Your task to perform on an android device: install app "HBO Max: Stream TV & Movies" Image 0: 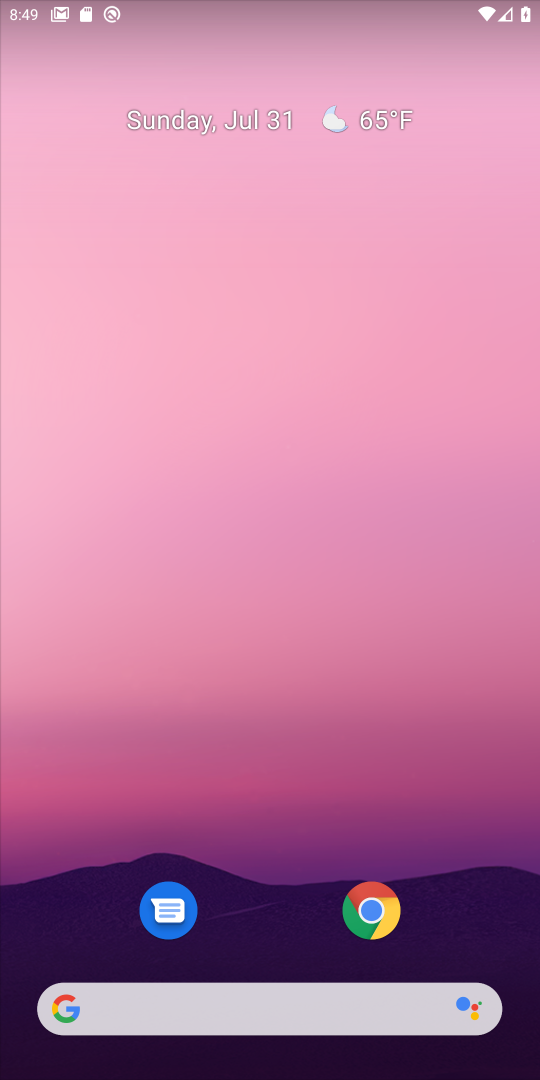
Step 0: drag from (286, 807) to (204, 400)
Your task to perform on an android device: install app "HBO Max: Stream TV & Movies" Image 1: 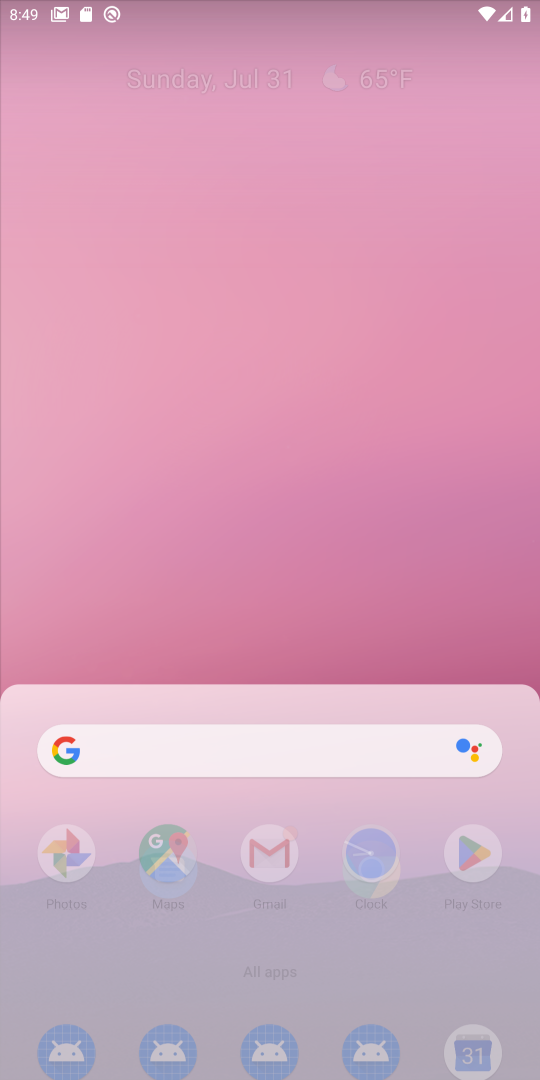
Step 1: drag from (340, 984) to (329, 126)
Your task to perform on an android device: install app "HBO Max: Stream TV & Movies" Image 2: 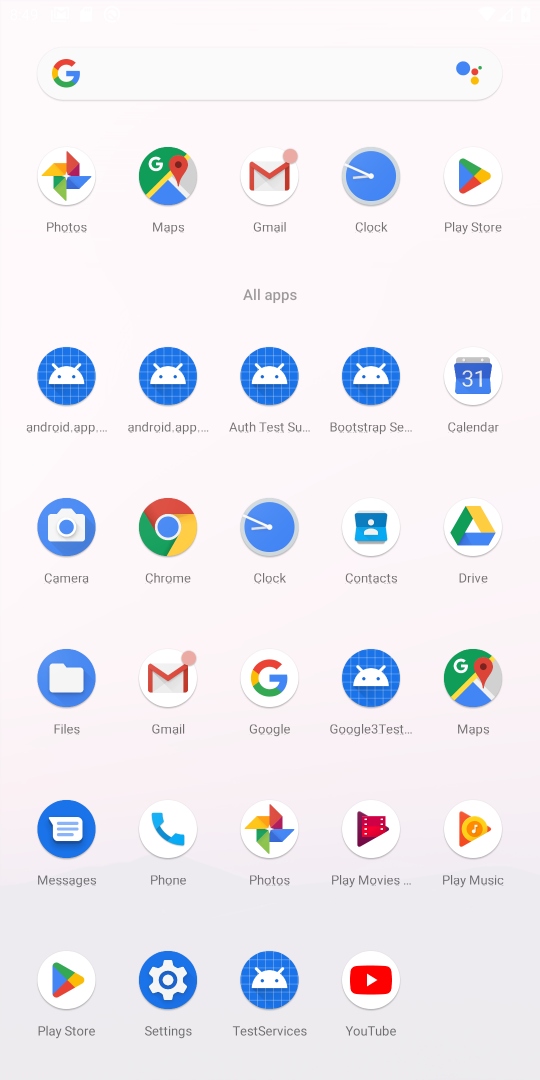
Step 2: drag from (316, 936) to (272, 208)
Your task to perform on an android device: install app "HBO Max: Stream TV & Movies" Image 3: 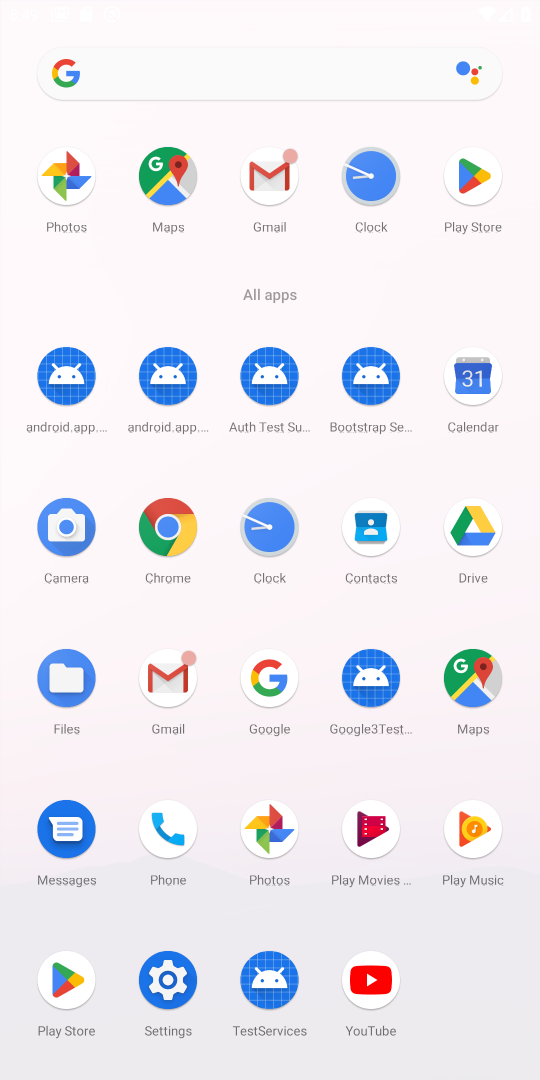
Step 3: drag from (387, 696) to (358, 238)
Your task to perform on an android device: install app "HBO Max: Stream TV & Movies" Image 4: 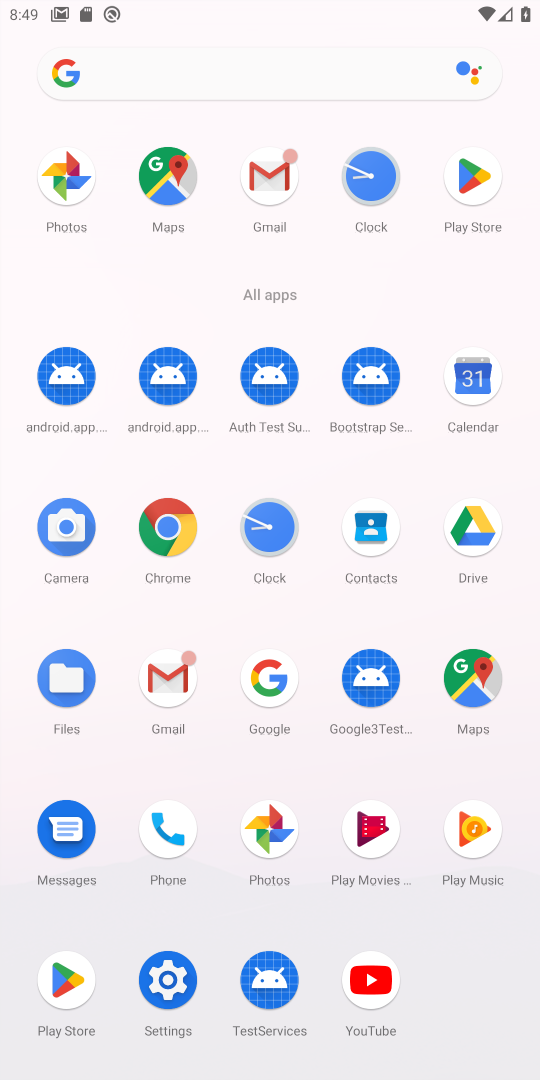
Step 4: click (68, 974)
Your task to perform on an android device: install app "HBO Max: Stream TV & Movies" Image 5: 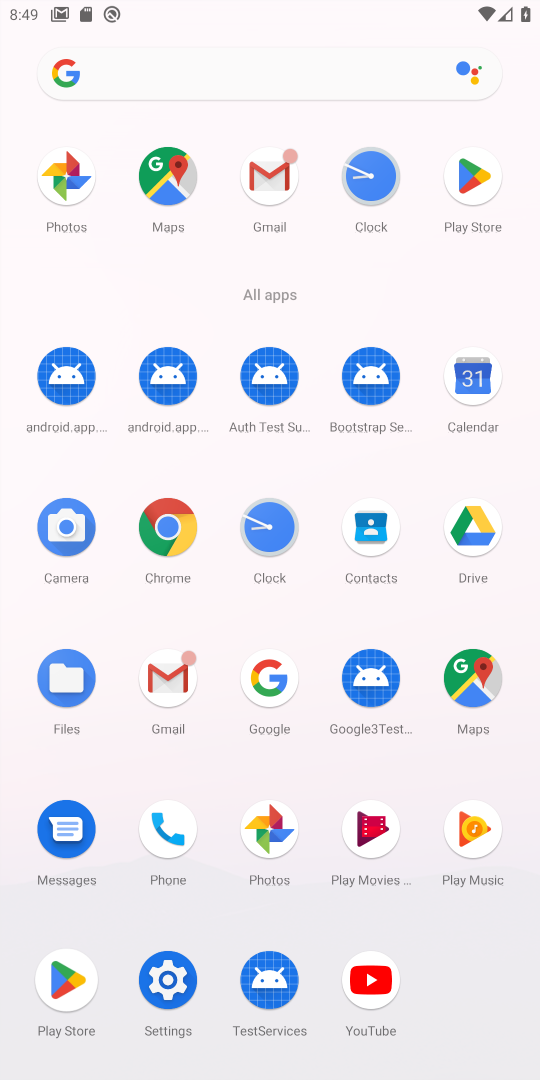
Step 5: click (68, 974)
Your task to perform on an android device: install app "HBO Max: Stream TV & Movies" Image 6: 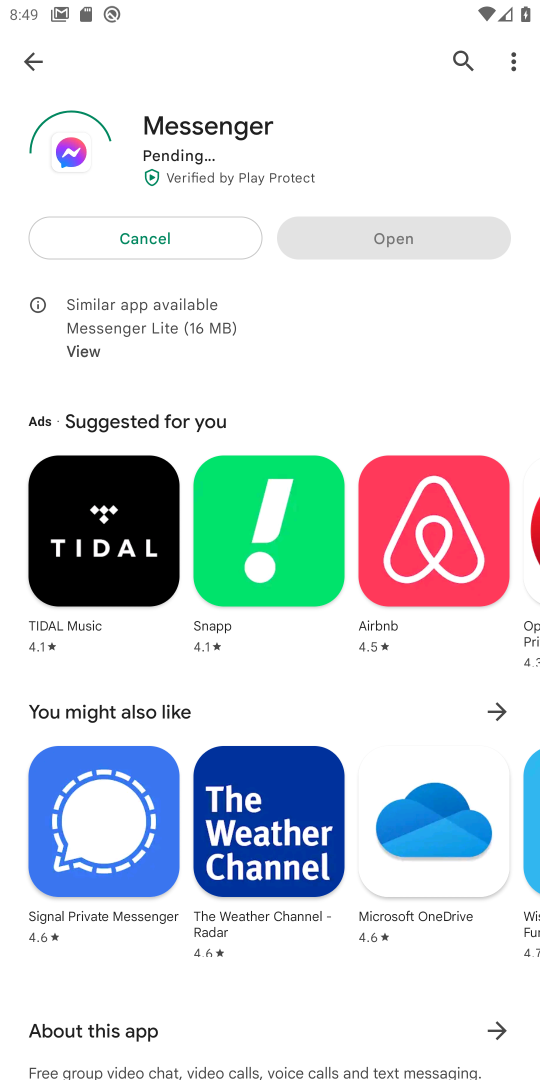
Step 6: click (57, 973)
Your task to perform on an android device: install app "HBO Max: Stream TV & Movies" Image 7: 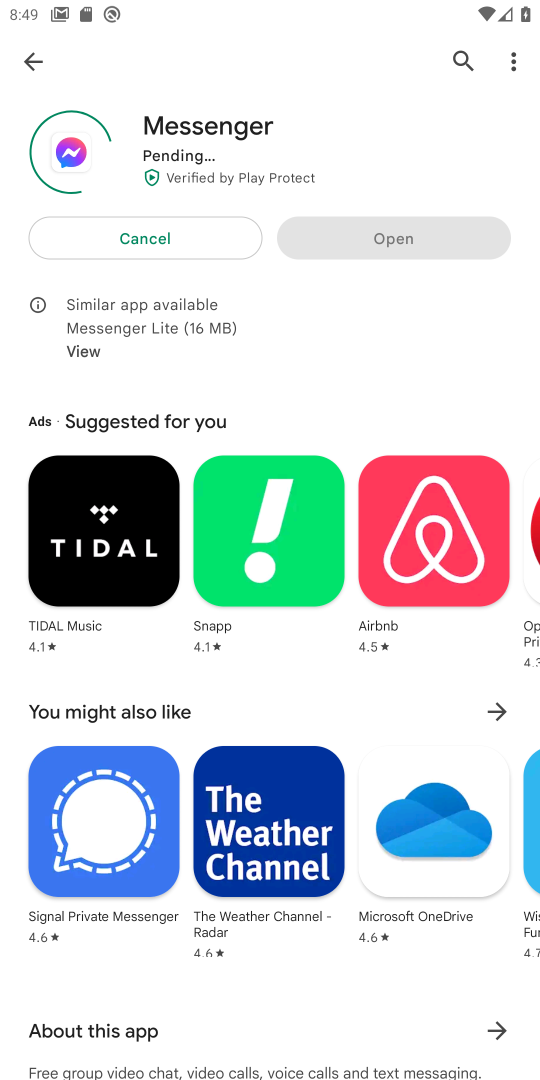
Step 7: click (28, 59)
Your task to perform on an android device: install app "HBO Max: Stream TV & Movies" Image 8: 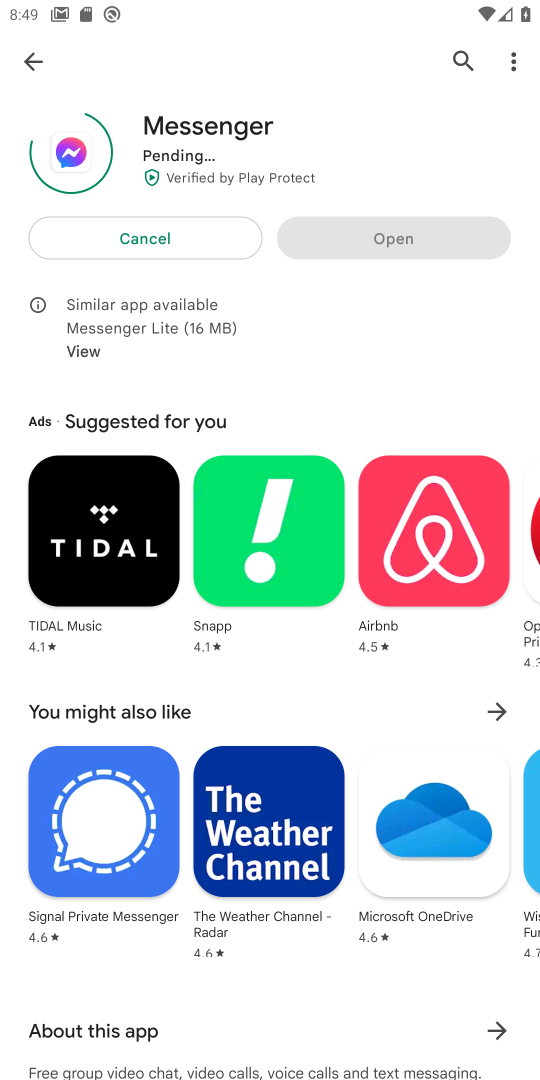
Step 8: click (28, 59)
Your task to perform on an android device: install app "HBO Max: Stream TV & Movies" Image 9: 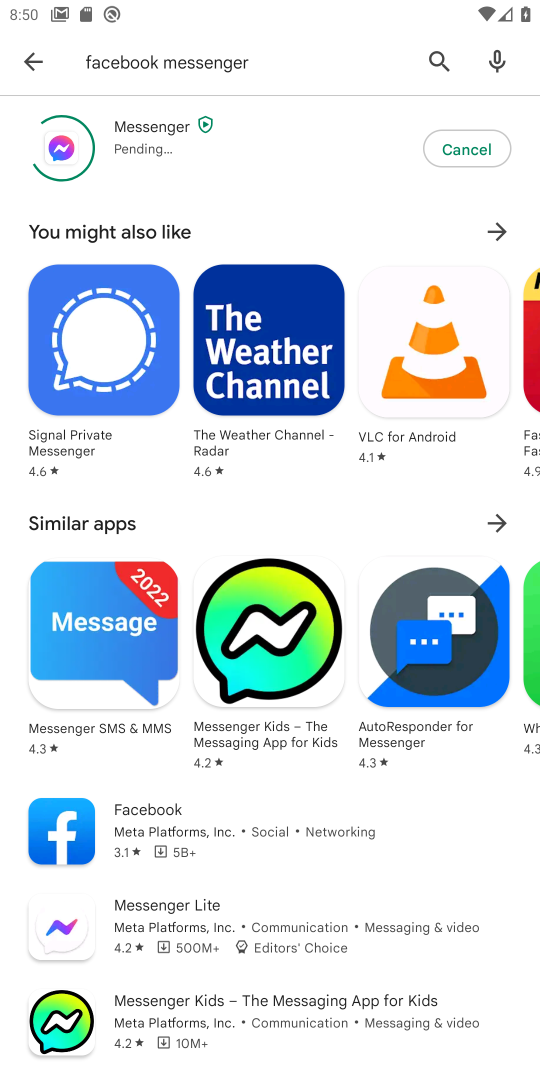
Step 9: click (30, 51)
Your task to perform on an android device: install app "HBO Max: Stream TV & Movies" Image 10: 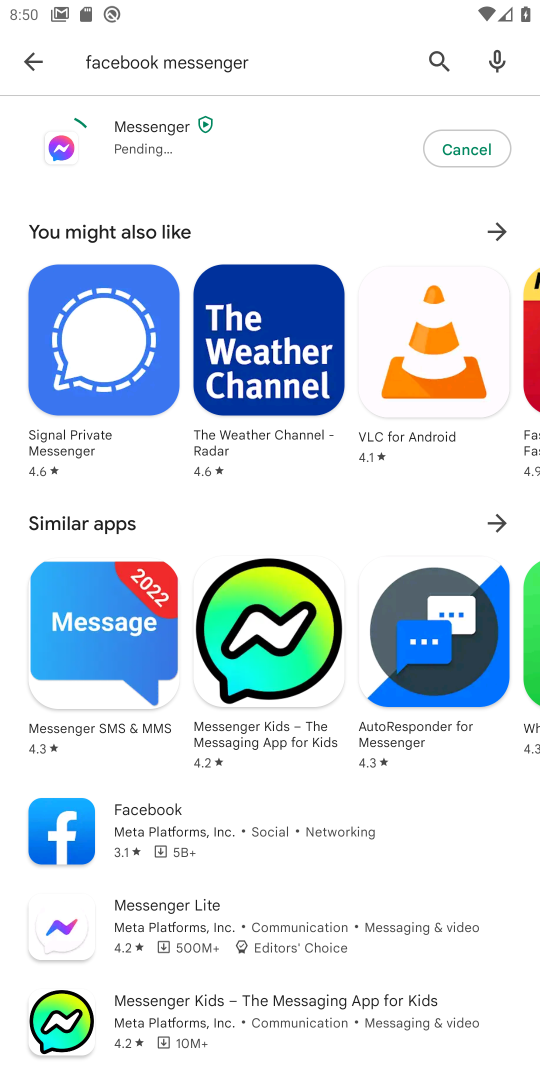
Step 10: click (10, 53)
Your task to perform on an android device: install app "HBO Max: Stream TV & Movies" Image 11: 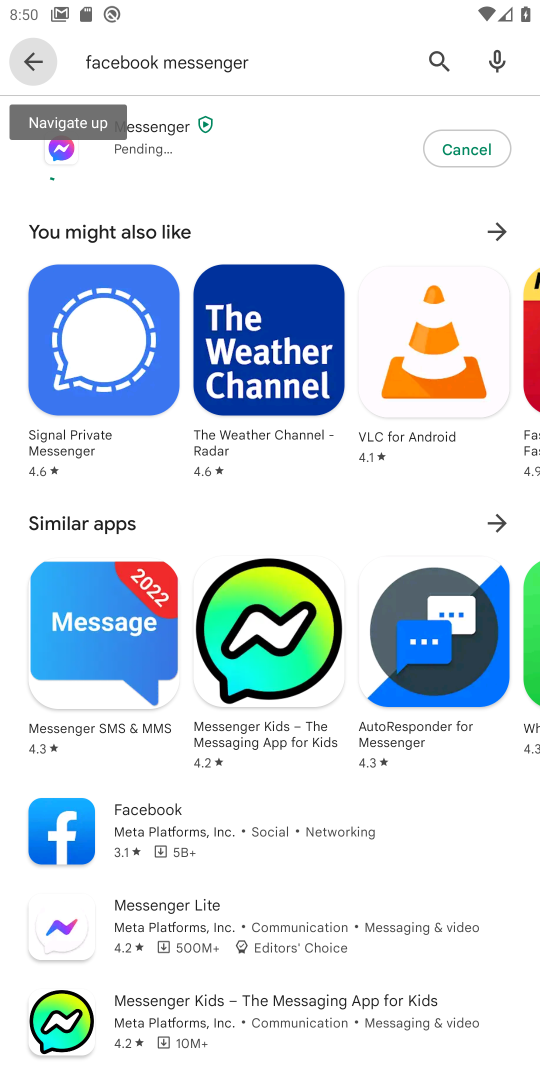
Step 11: click (39, 48)
Your task to perform on an android device: install app "HBO Max: Stream TV & Movies" Image 12: 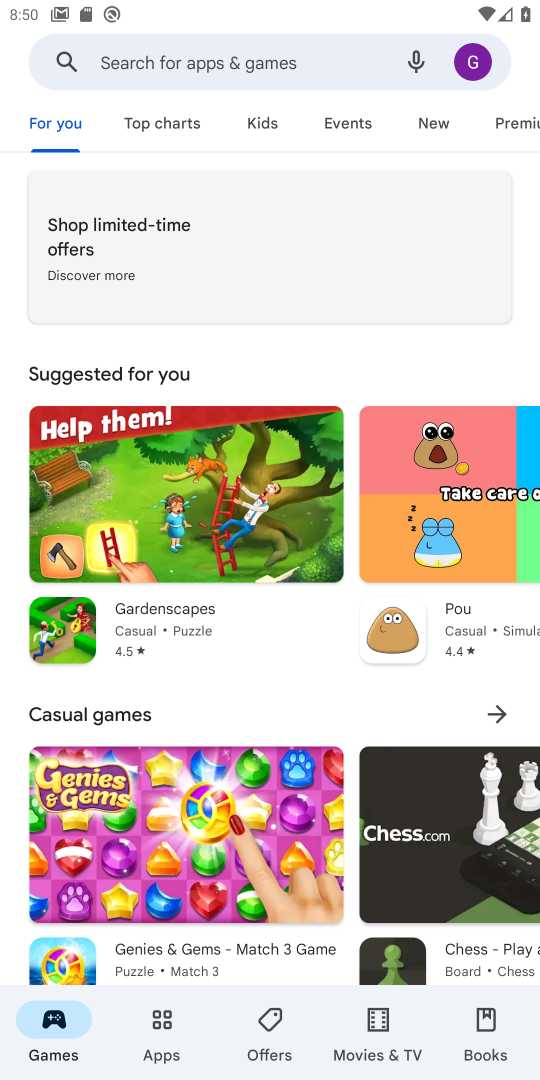
Step 12: drag from (110, 64) to (129, 117)
Your task to perform on an android device: install app "HBO Max: Stream TV & Movies" Image 13: 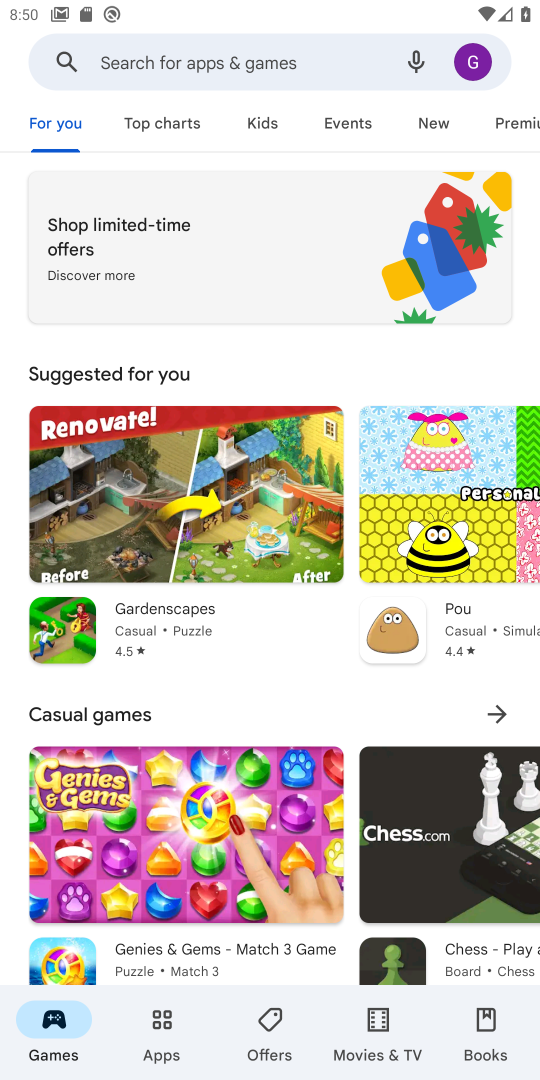
Step 13: type "HBO Max: Stream TV & Movies"
Your task to perform on an android device: install app "HBO Max: Stream TV & Movies" Image 14: 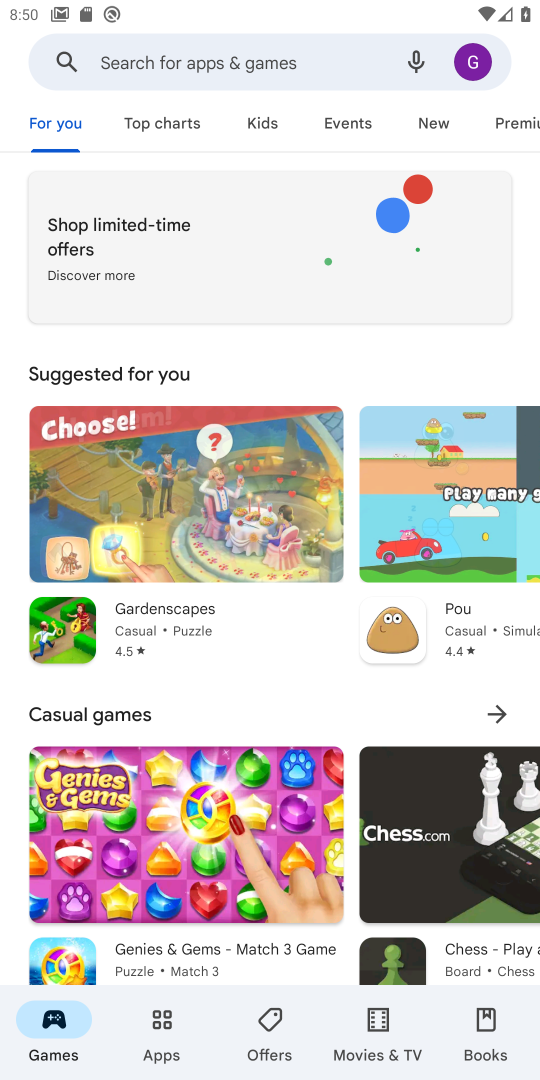
Step 14: click (211, 75)
Your task to perform on an android device: install app "HBO Max: Stream TV & Movies" Image 15: 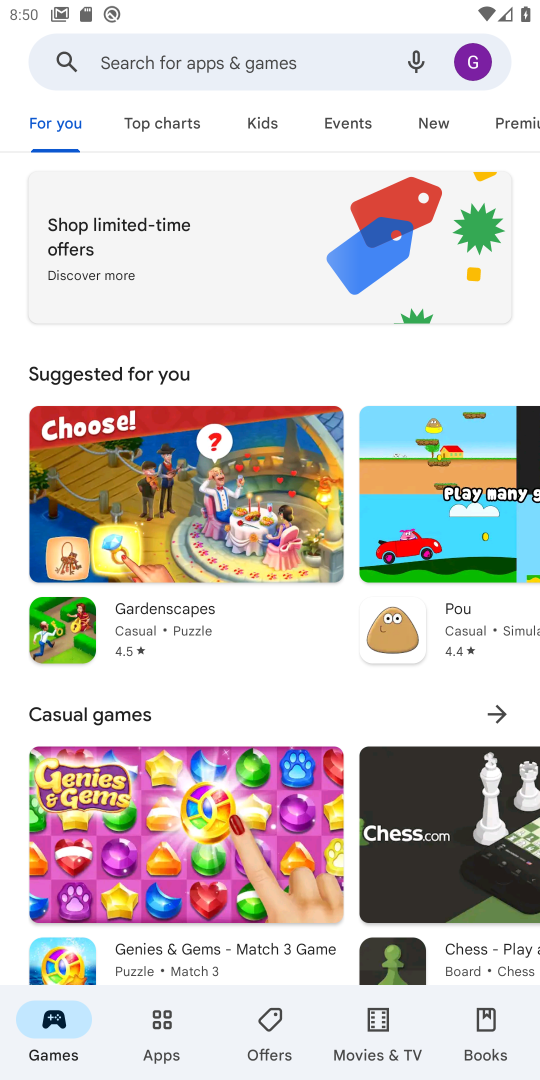
Step 15: click (242, 85)
Your task to perform on an android device: install app "HBO Max: Stream TV & Movies" Image 16: 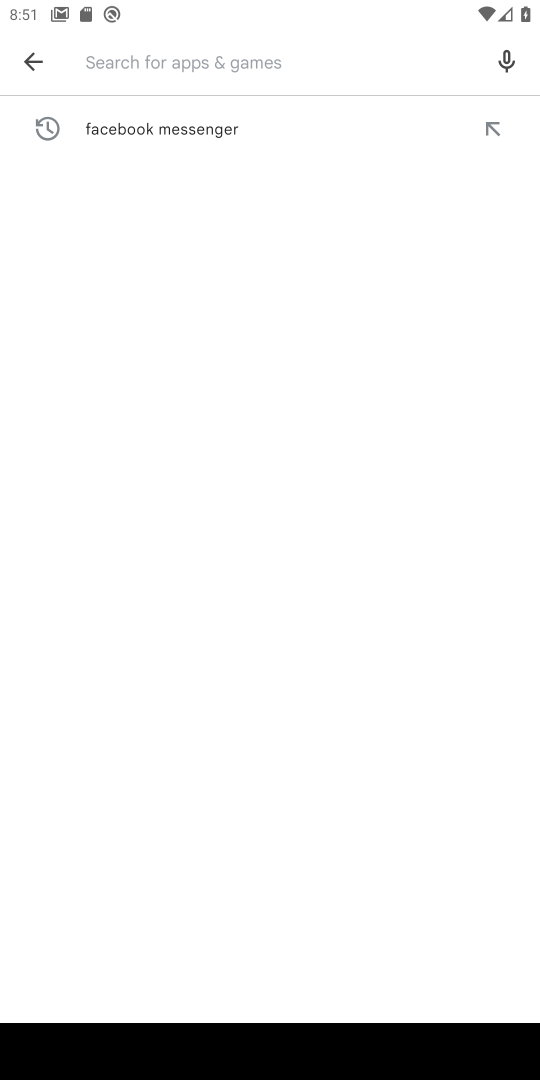
Step 16: type "HBO Max : Stream TV & Movies"
Your task to perform on an android device: install app "HBO Max: Stream TV & Movies" Image 17: 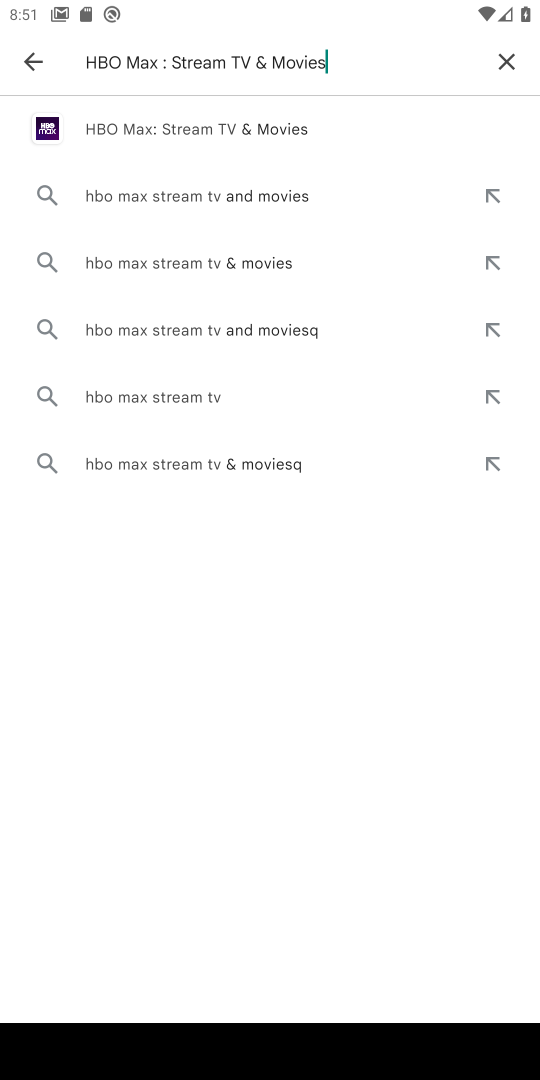
Step 17: click (182, 128)
Your task to perform on an android device: install app "HBO Max: Stream TV & Movies" Image 18: 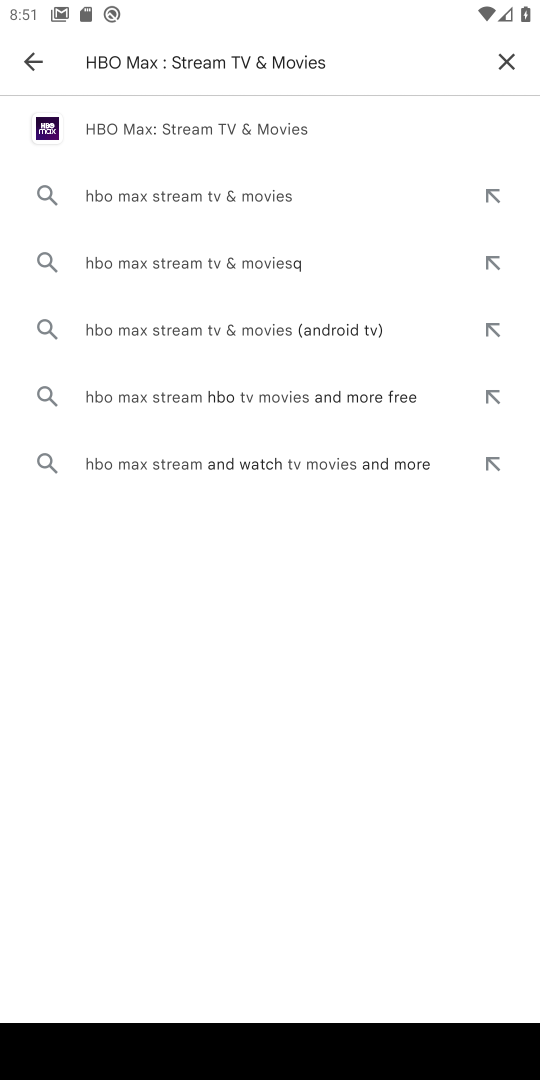
Step 18: click (182, 128)
Your task to perform on an android device: install app "HBO Max: Stream TV & Movies" Image 19: 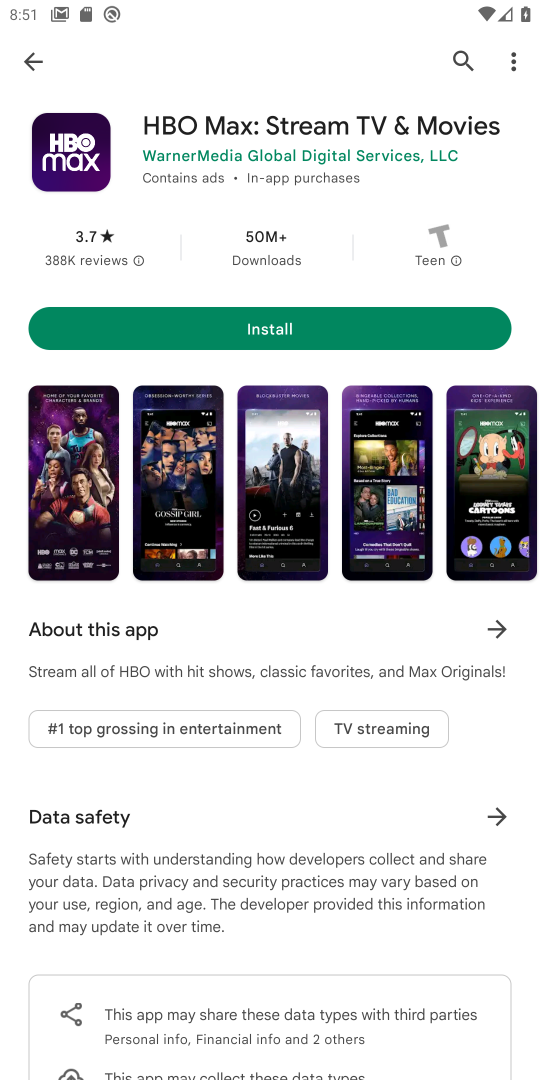
Step 19: click (29, 50)
Your task to perform on an android device: install app "HBO Max: Stream TV & Movies" Image 20: 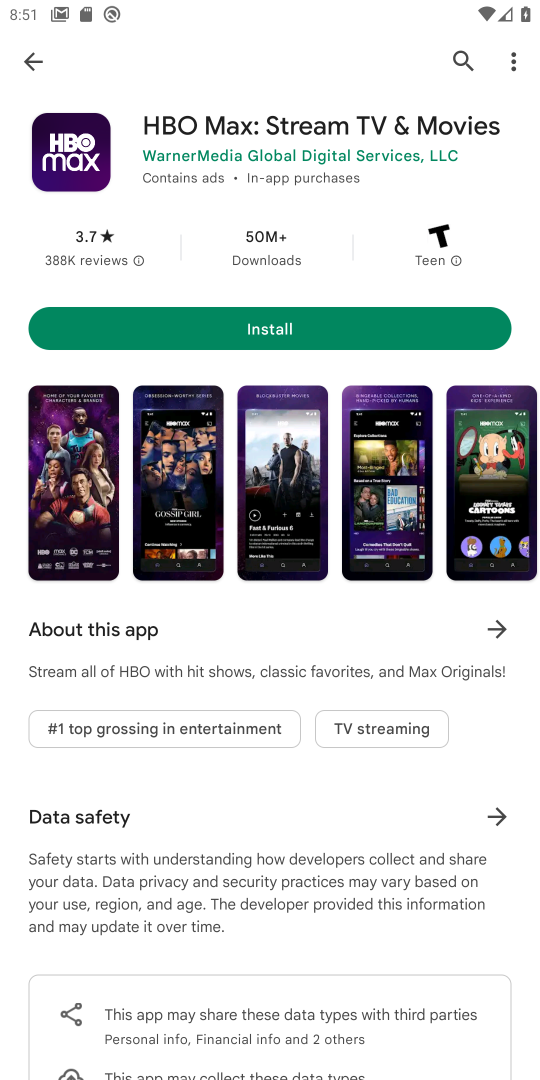
Step 20: click (29, 57)
Your task to perform on an android device: install app "HBO Max: Stream TV & Movies" Image 21: 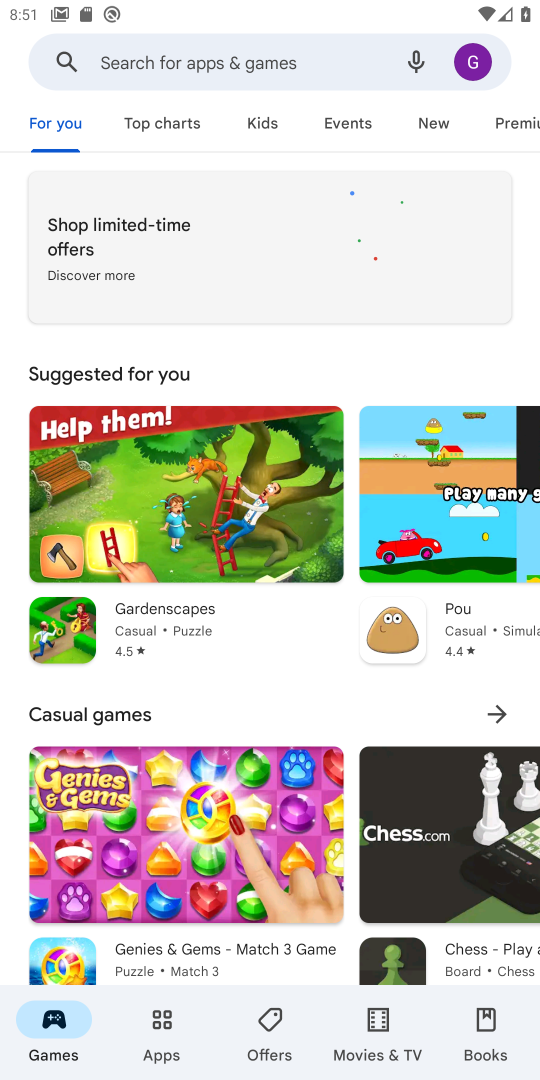
Step 21: click (105, 56)
Your task to perform on an android device: install app "HBO Max: Stream TV & Movies" Image 22: 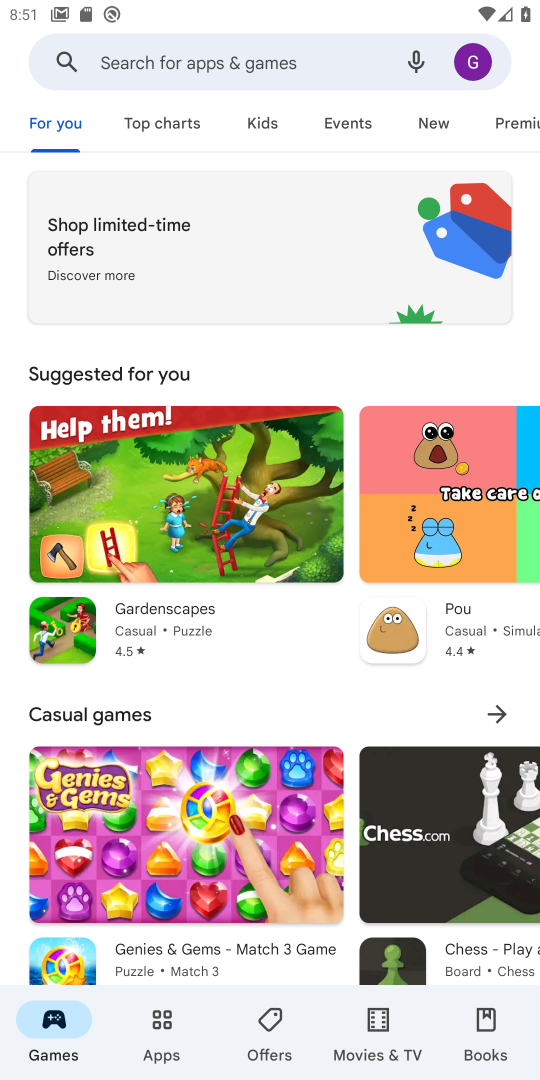
Step 22: click (106, 61)
Your task to perform on an android device: install app "HBO Max: Stream TV & Movies" Image 23: 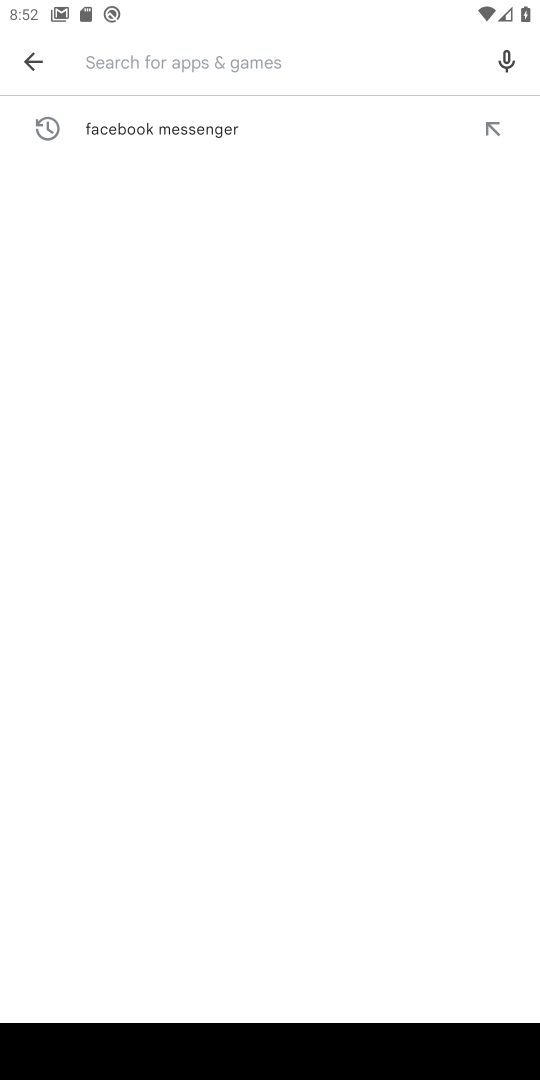
Step 23: type "HBO Max : Stream TV & Movies"
Your task to perform on an android device: install app "HBO Max: Stream TV & Movies" Image 24: 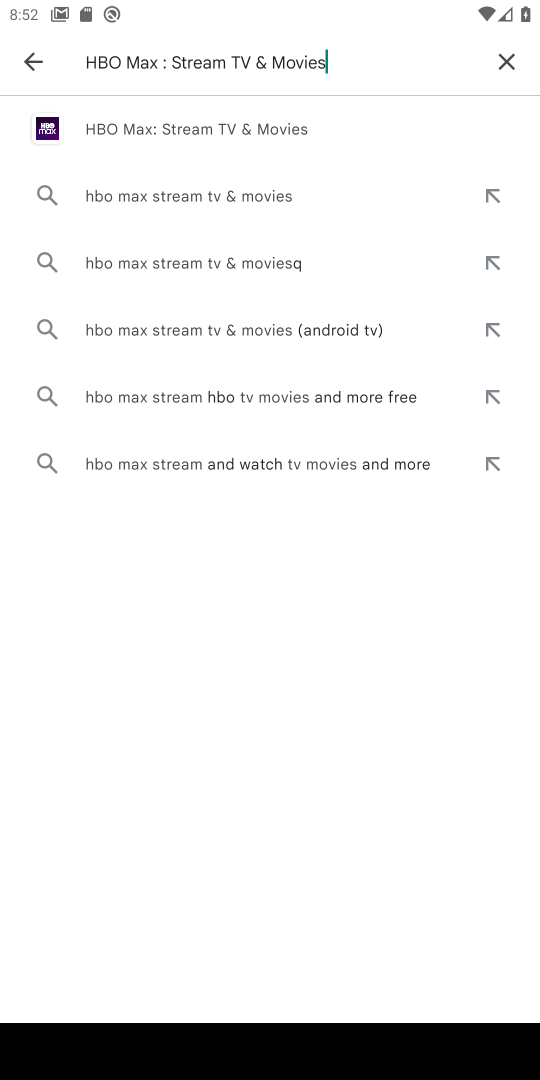
Step 24: click (269, 126)
Your task to perform on an android device: install app "HBO Max: Stream TV & Movies" Image 25: 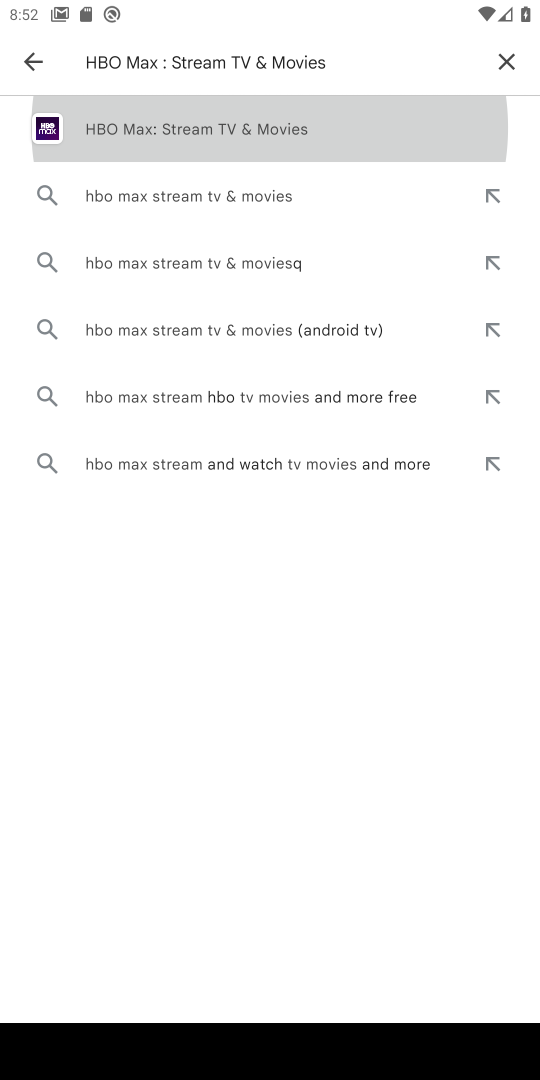
Step 25: click (255, 139)
Your task to perform on an android device: install app "HBO Max: Stream TV & Movies" Image 26: 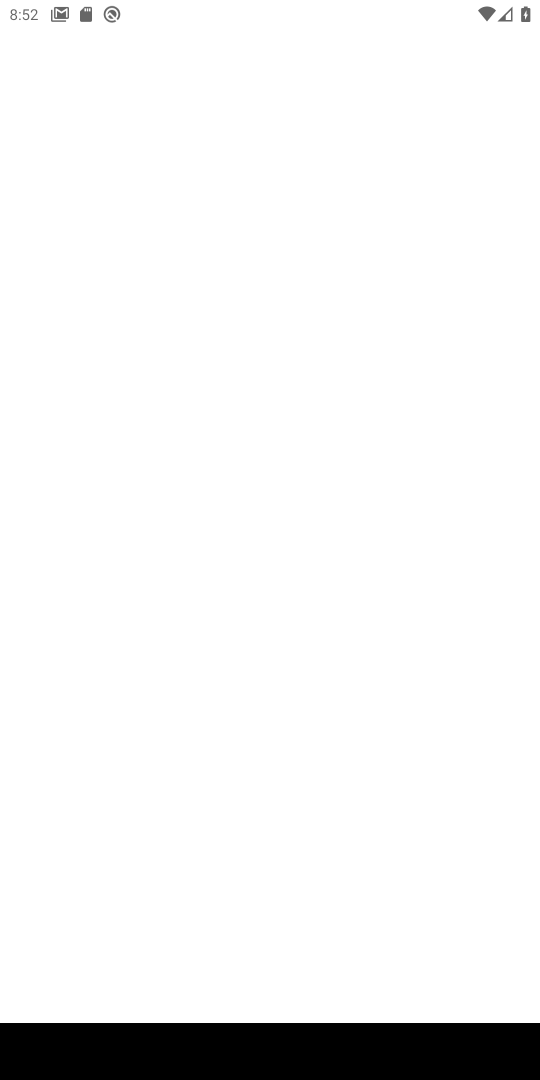
Step 26: click (255, 139)
Your task to perform on an android device: install app "HBO Max: Stream TV & Movies" Image 27: 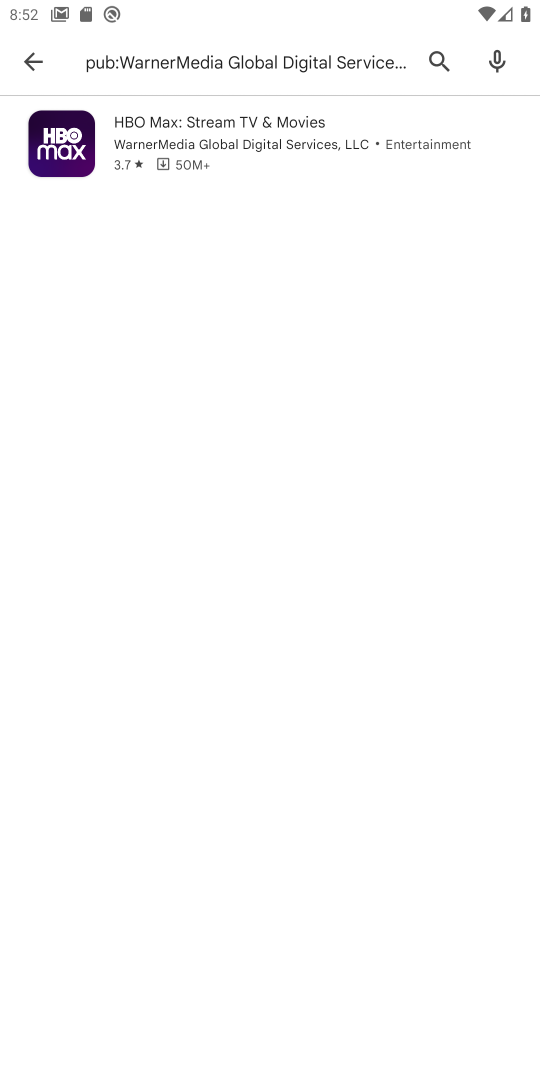
Step 27: click (210, 137)
Your task to perform on an android device: install app "HBO Max: Stream TV & Movies" Image 28: 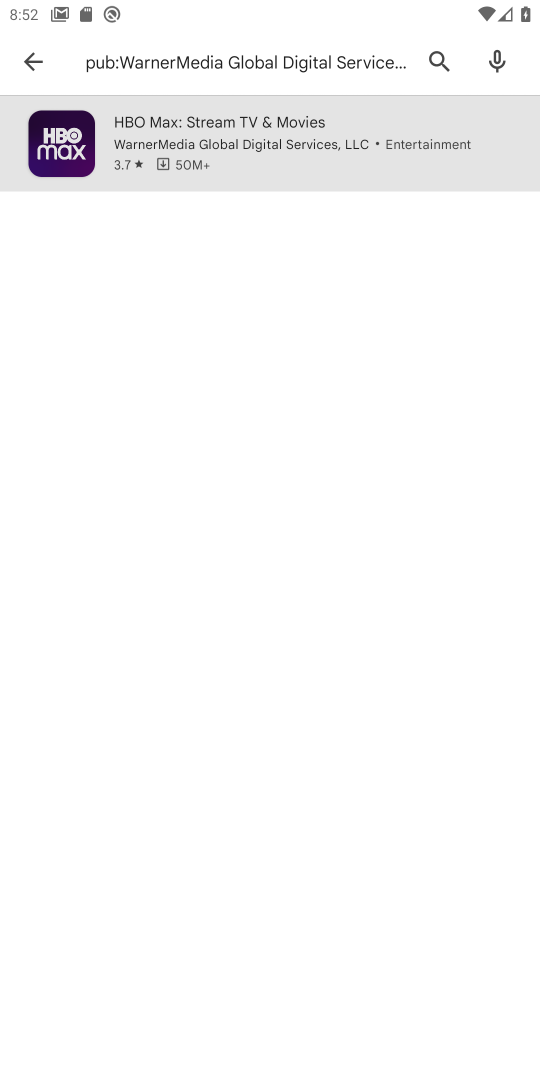
Step 28: click (210, 137)
Your task to perform on an android device: install app "HBO Max: Stream TV & Movies" Image 29: 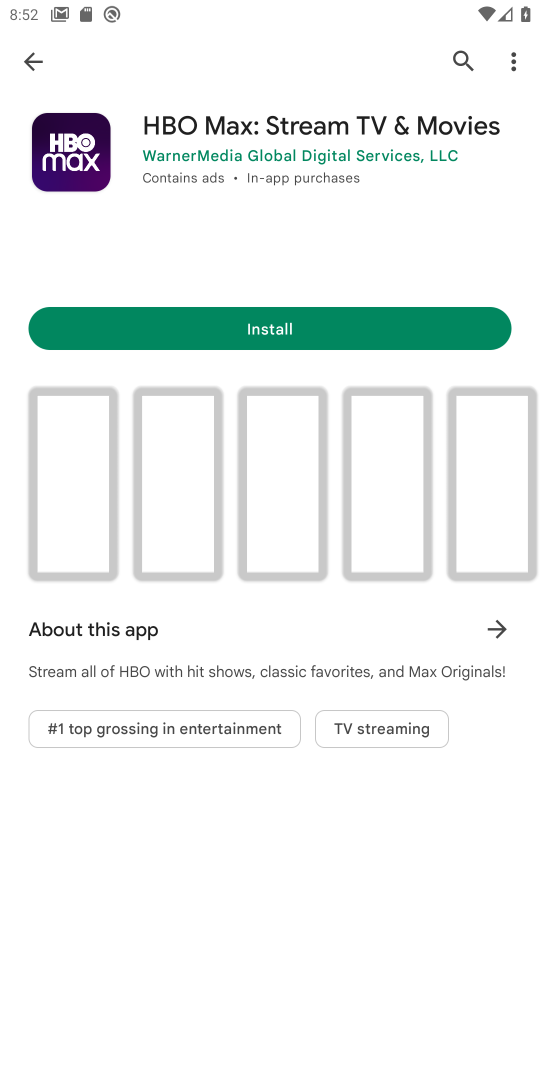
Step 29: click (213, 137)
Your task to perform on an android device: install app "HBO Max: Stream TV & Movies" Image 30: 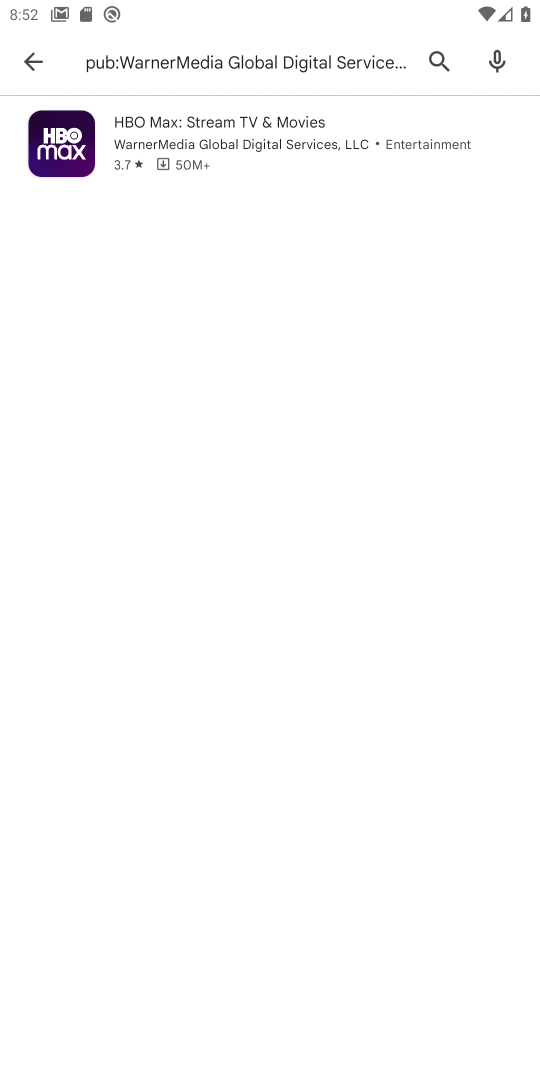
Step 30: click (178, 158)
Your task to perform on an android device: install app "HBO Max: Stream TV & Movies" Image 31: 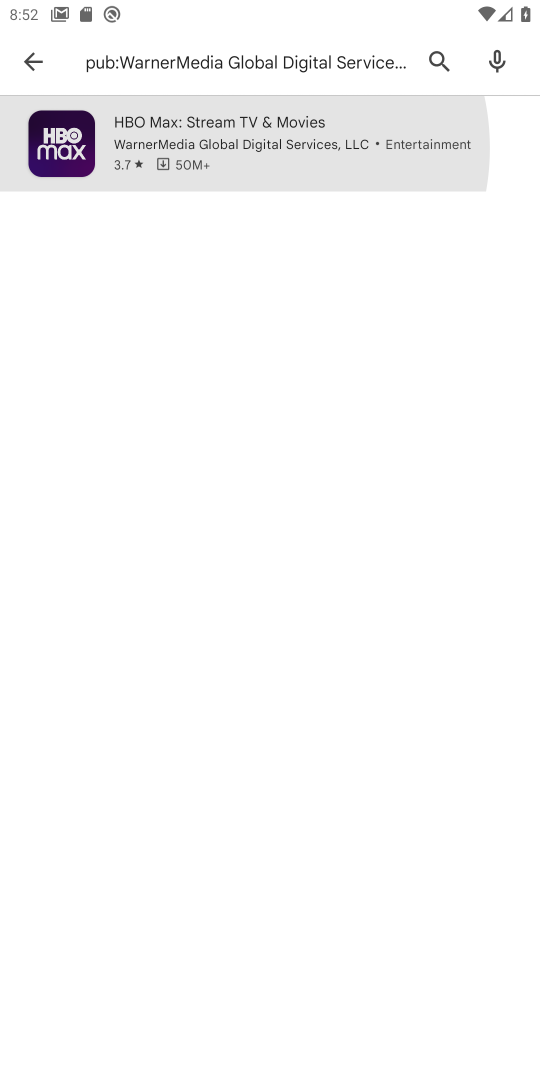
Step 31: click (178, 158)
Your task to perform on an android device: install app "HBO Max: Stream TV & Movies" Image 32: 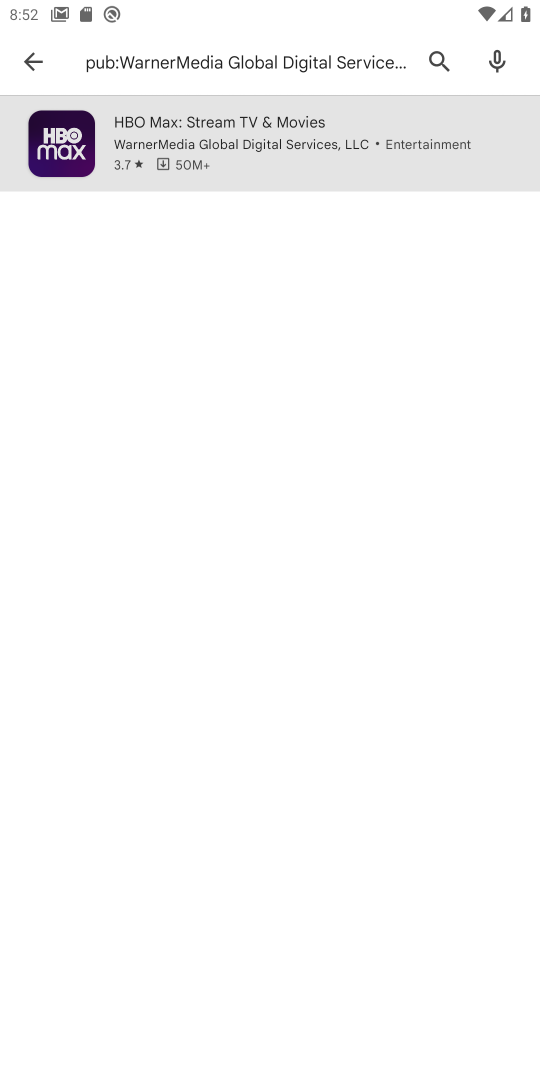
Step 32: click (177, 160)
Your task to perform on an android device: install app "HBO Max: Stream TV & Movies" Image 33: 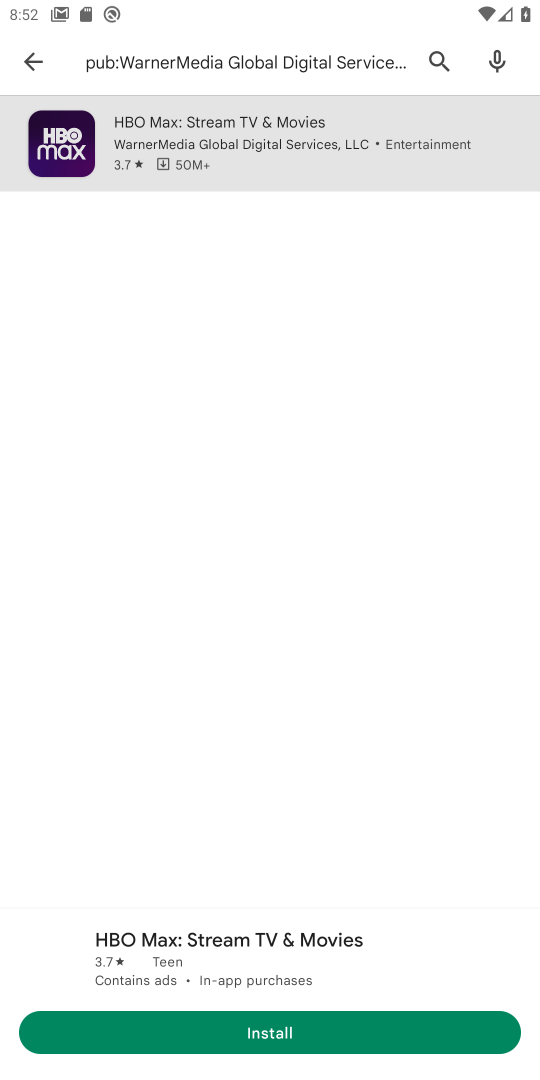
Step 33: click (177, 161)
Your task to perform on an android device: install app "HBO Max: Stream TV & Movies" Image 34: 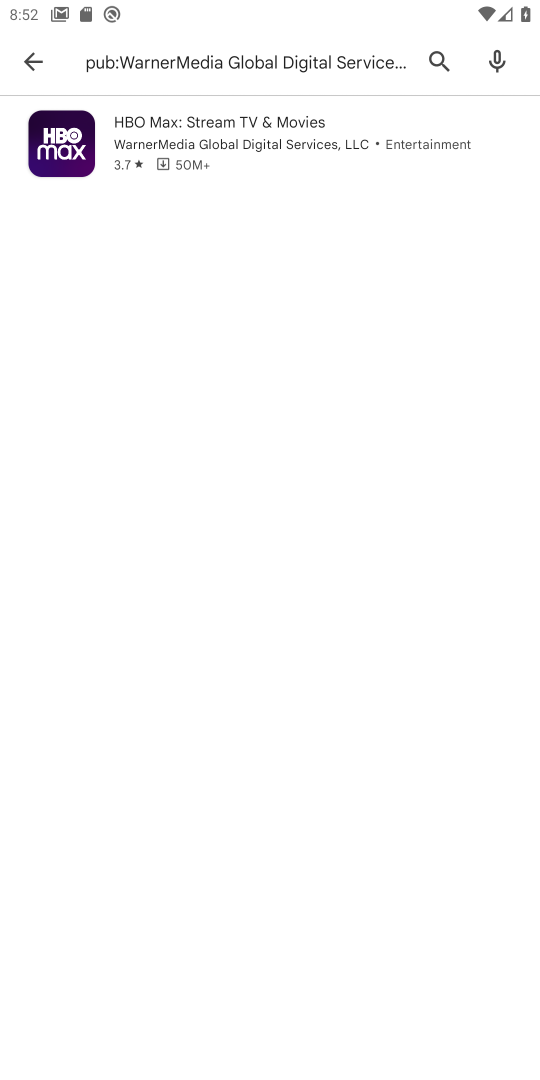
Step 34: click (173, 158)
Your task to perform on an android device: install app "HBO Max: Stream TV & Movies" Image 35: 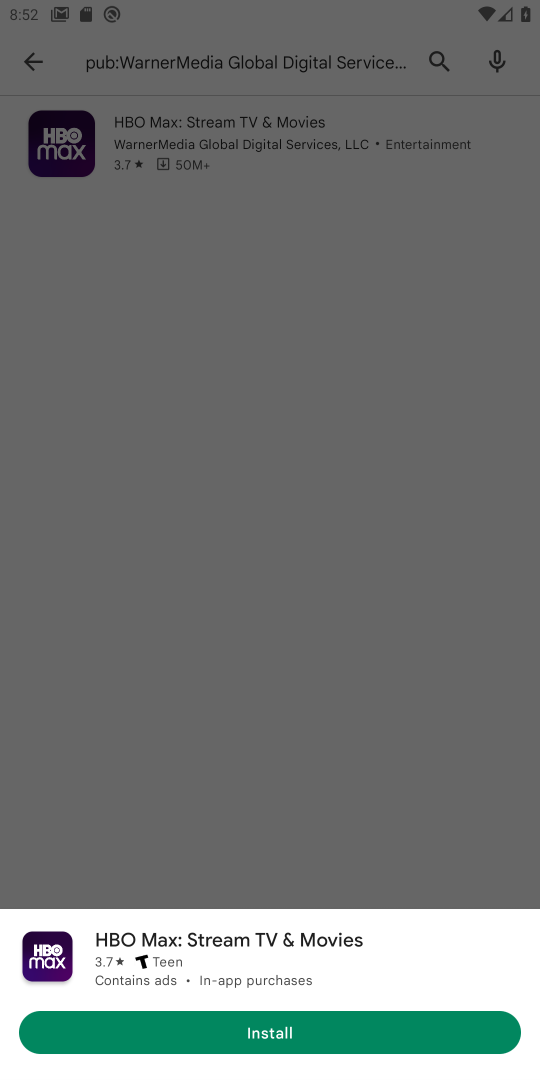
Step 35: click (261, 1030)
Your task to perform on an android device: install app "HBO Max: Stream TV & Movies" Image 36: 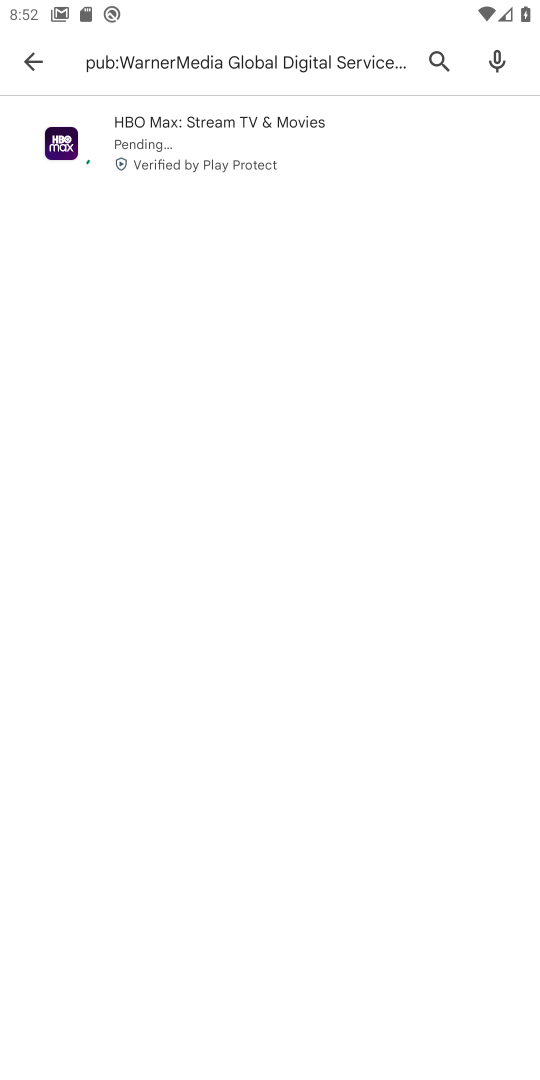
Step 36: click (184, 142)
Your task to perform on an android device: install app "HBO Max: Stream TV & Movies" Image 37: 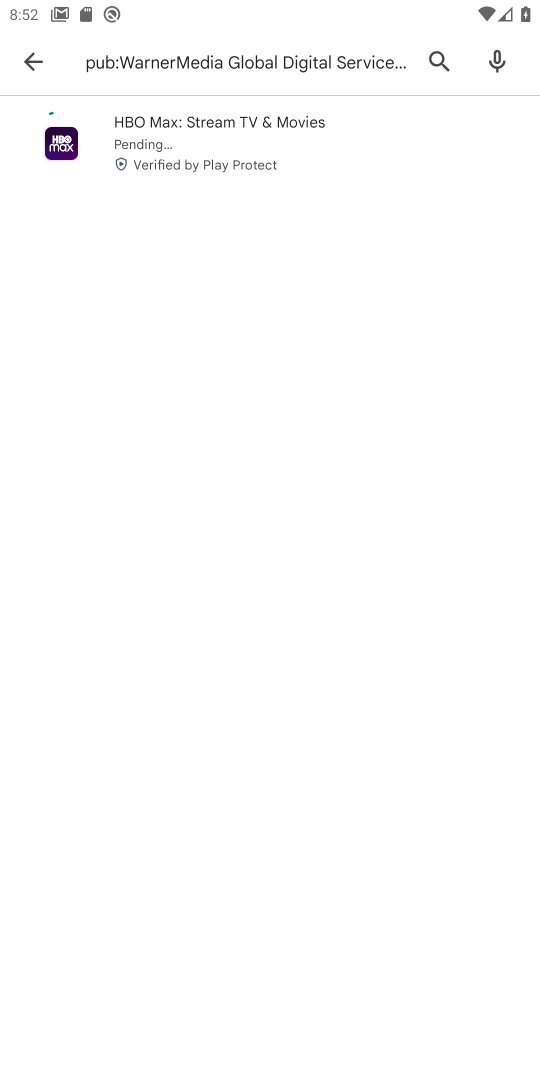
Step 37: click (184, 142)
Your task to perform on an android device: install app "HBO Max: Stream TV & Movies" Image 38: 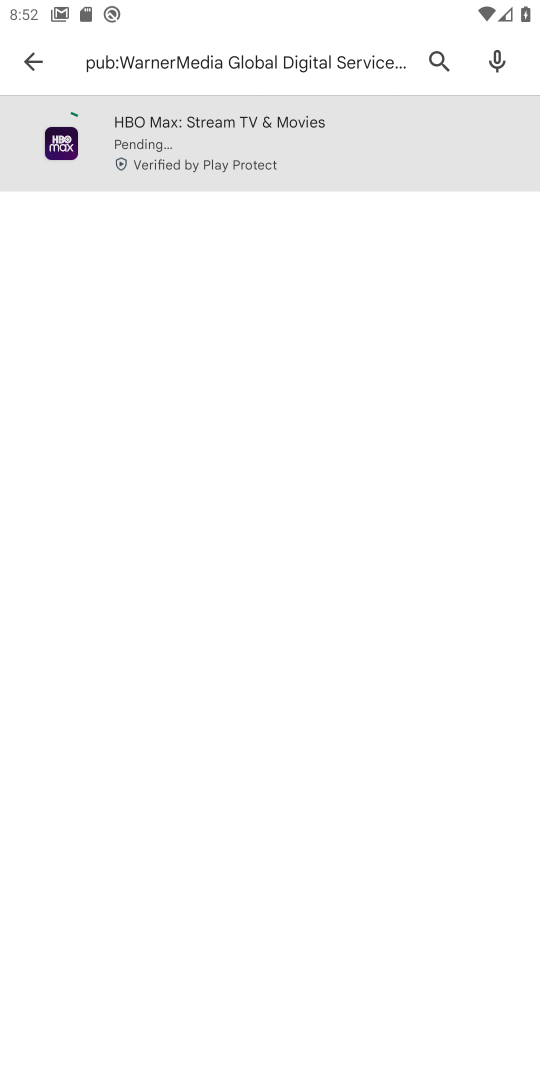
Step 38: click (184, 139)
Your task to perform on an android device: install app "HBO Max: Stream TV & Movies" Image 39: 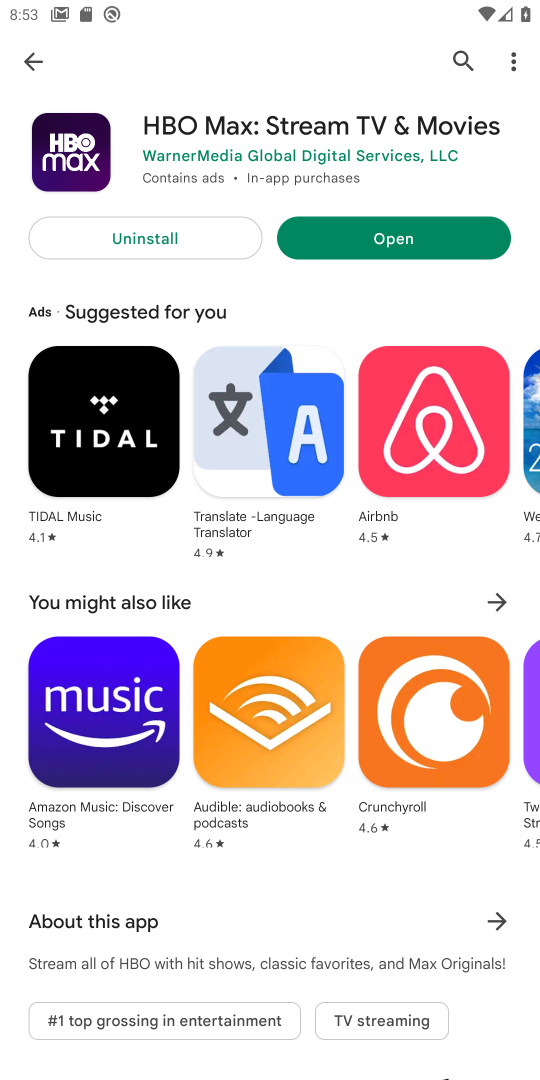
Step 39: click (398, 237)
Your task to perform on an android device: install app "HBO Max: Stream TV & Movies" Image 40: 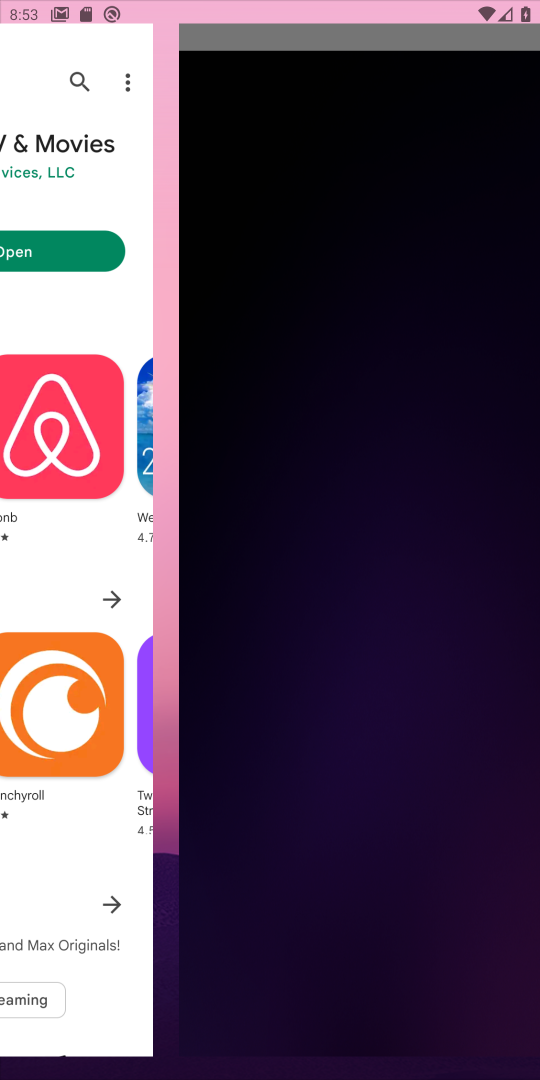
Step 40: task complete